Your task to perform on an android device: open app "Google Translate" (install if not already installed) Image 0: 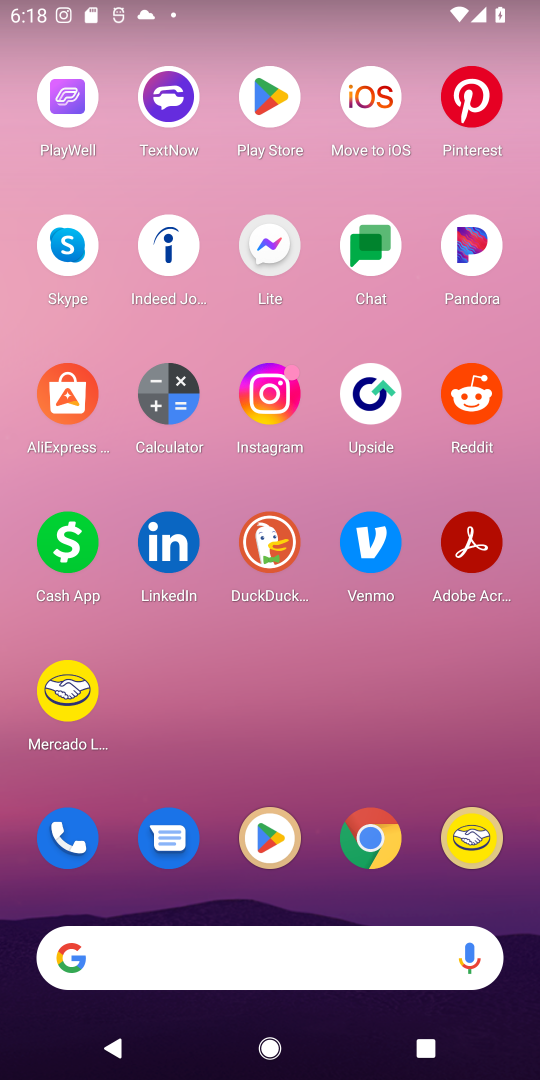
Step 0: click (264, 833)
Your task to perform on an android device: open app "Google Translate" (install if not already installed) Image 1: 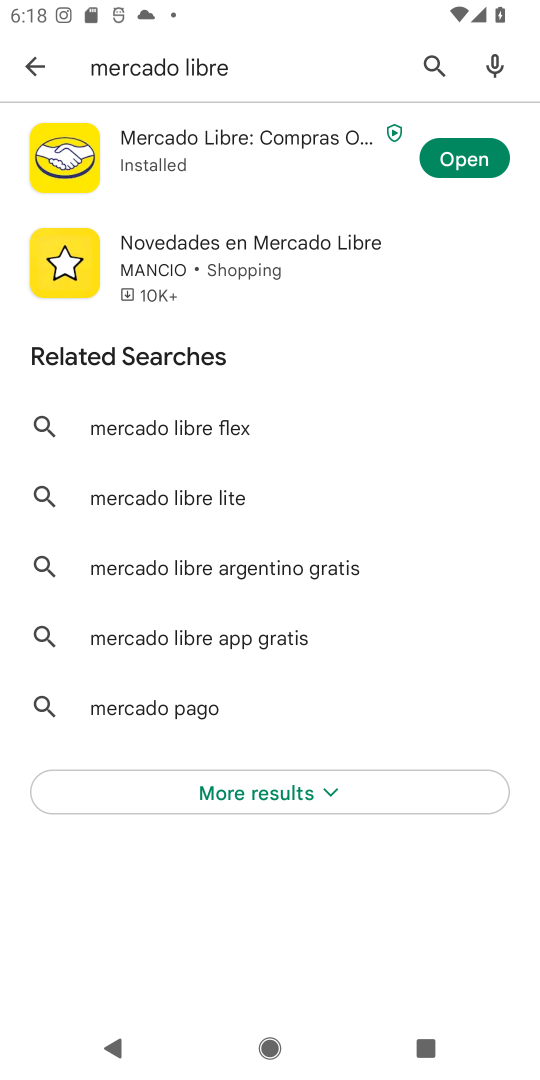
Step 1: click (440, 57)
Your task to perform on an android device: open app "Google Translate" (install if not already installed) Image 2: 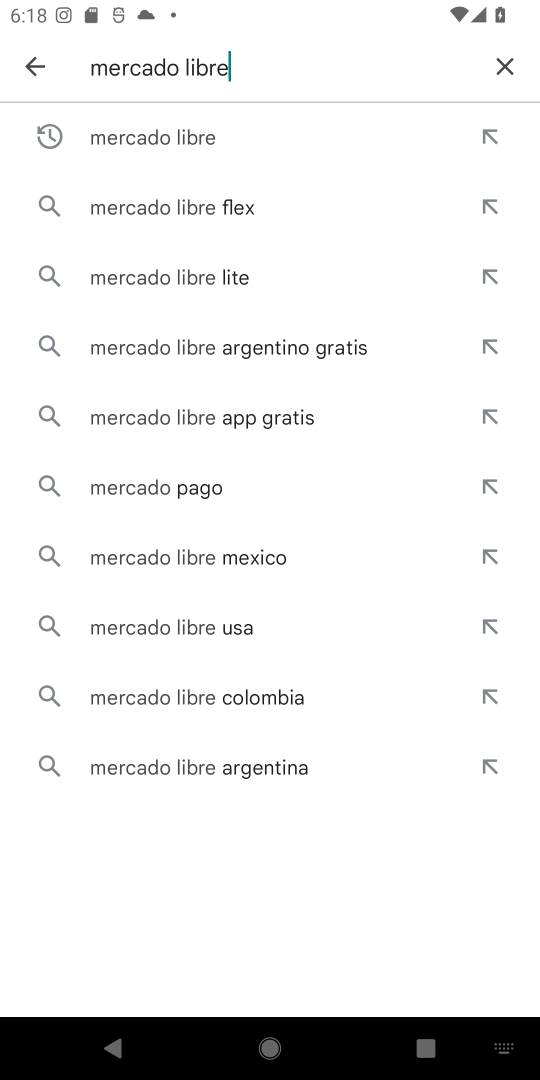
Step 2: click (505, 65)
Your task to perform on an android device: open app "Google Translate" (install if not already installed) Image 3: 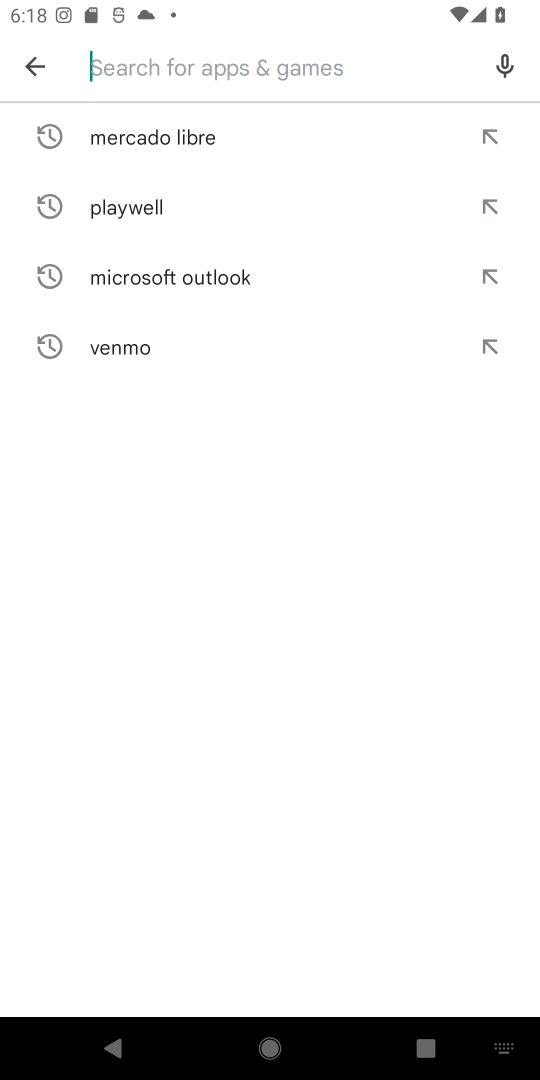
Step 3: type "Google Translate"
Your task to perform on an android device: open app "Google Translate" (install if not already installed) Image 4: 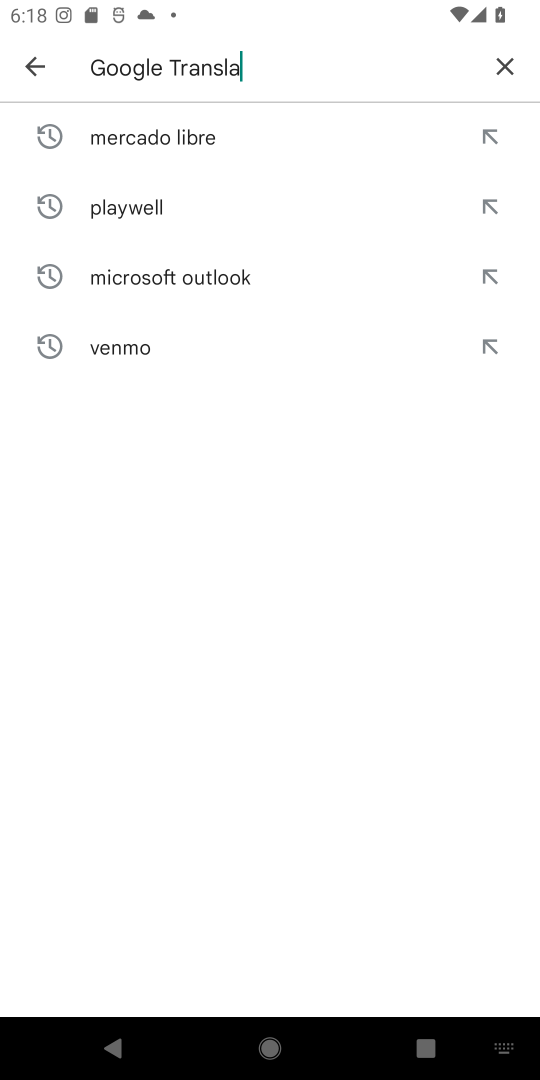
Step 4: type ""
Your task to perform on an android device: open app "Google Translate" (install if not already installed) Image 5: 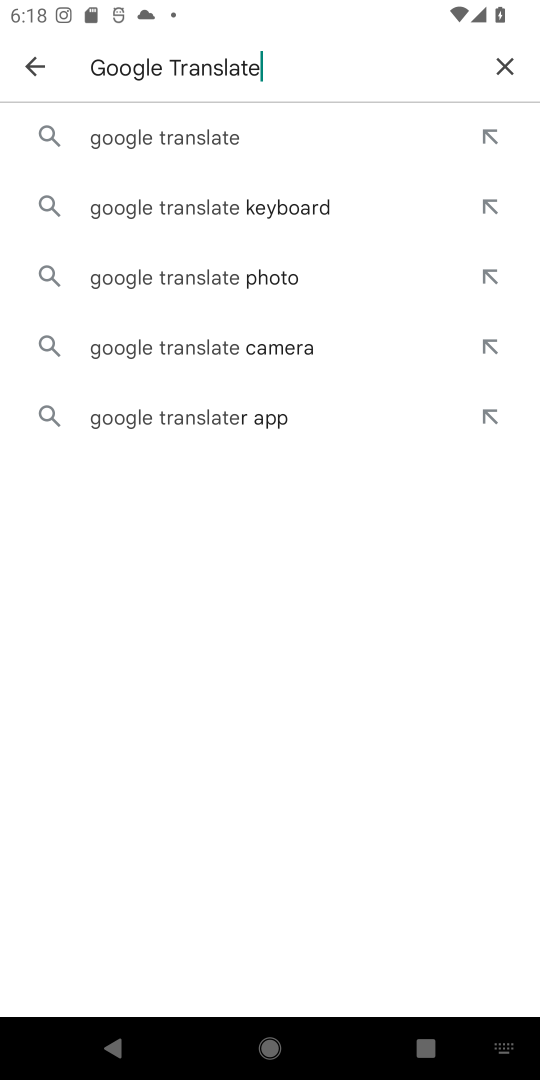
Step 5: click (214, 141)
Your task to perform on an android device: open app "Google Translate" (install if not already installed) Image 6: 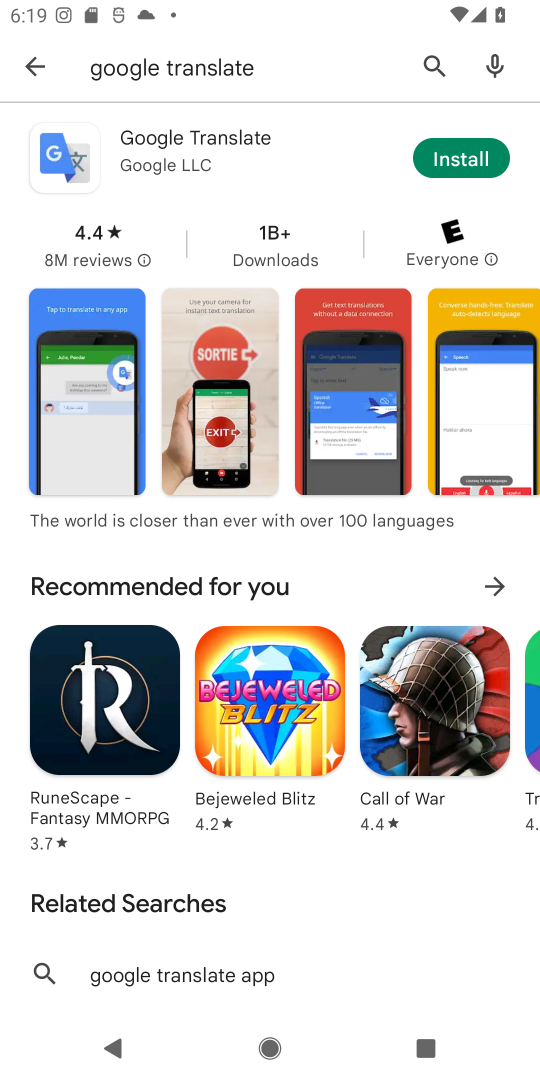
Step 6: click (449, 153)
Your task to perform on an android device: open app "Google Translate" (install if not already installed) Image 7: 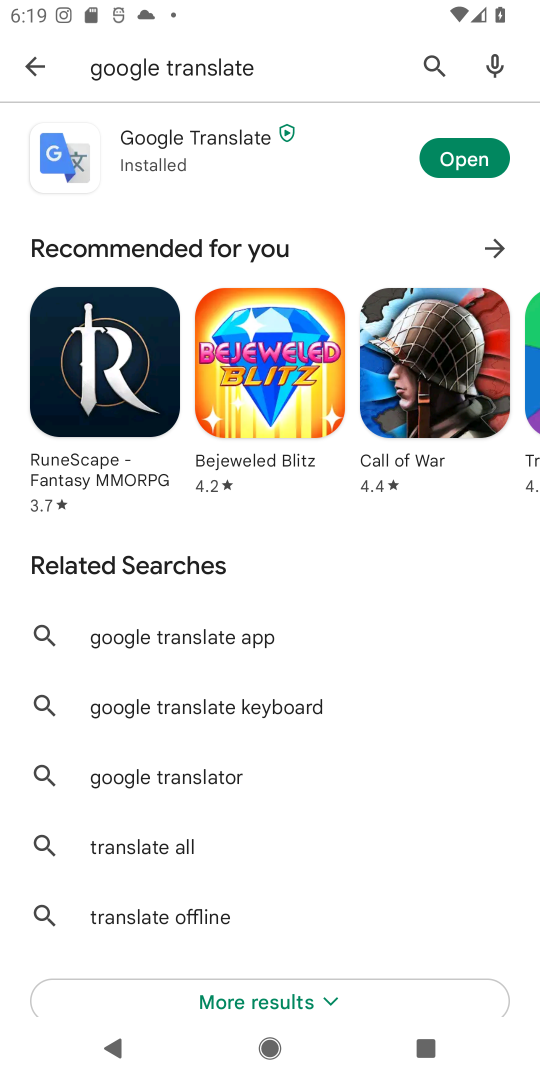
Step 7: click (463, 159)
Your task to perform on an android device: open app "Google Translate" (install if not already installed) Image 8: 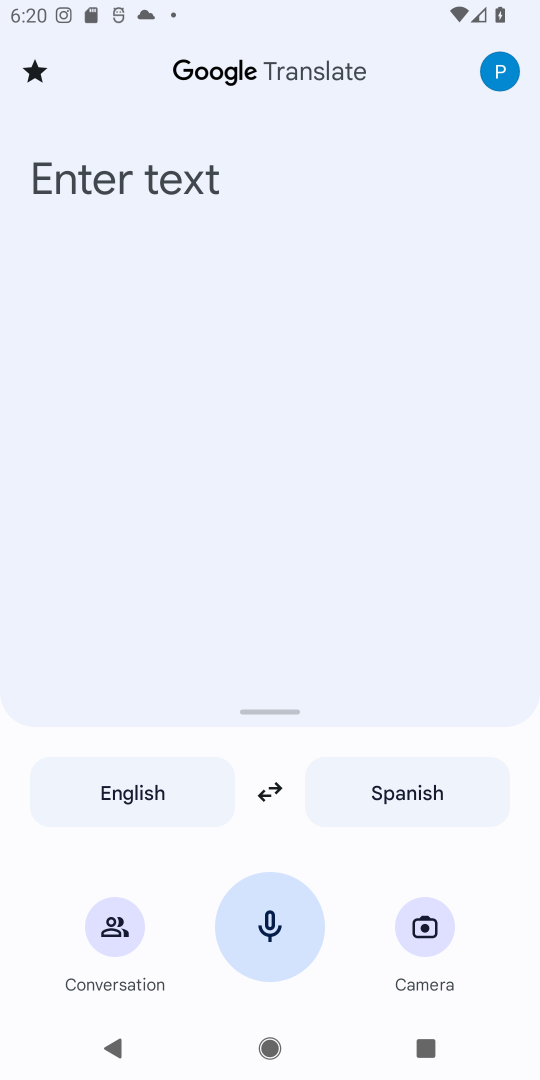
Step 8: press home button
Your task to perform on an android device: open app "Google Translate" (install if not already installed) Image 9: 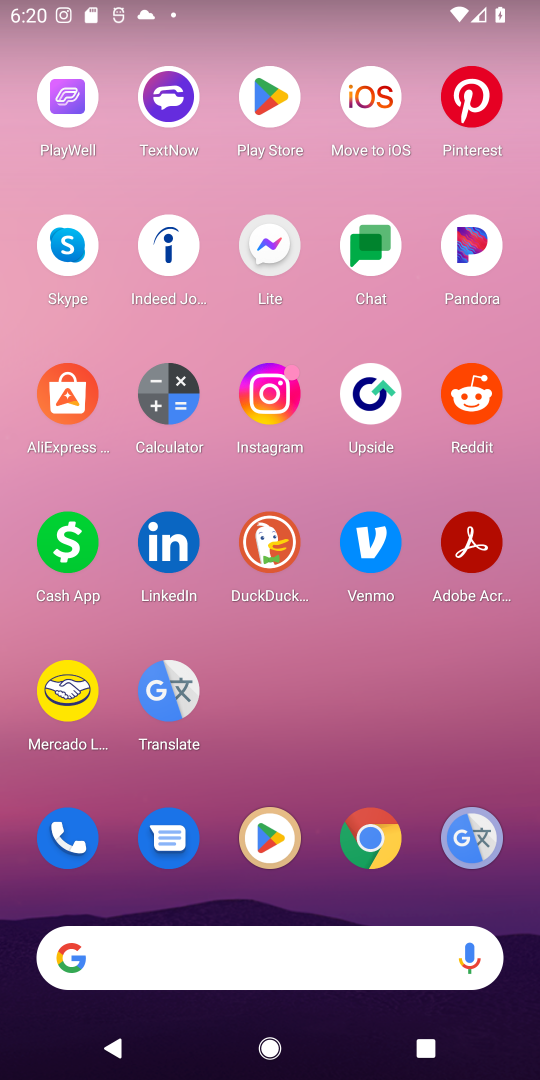
Step 9: click (259, 852)
Your task to perform on an android device: open app "Google Translate" (install if not already installed) Image 10: 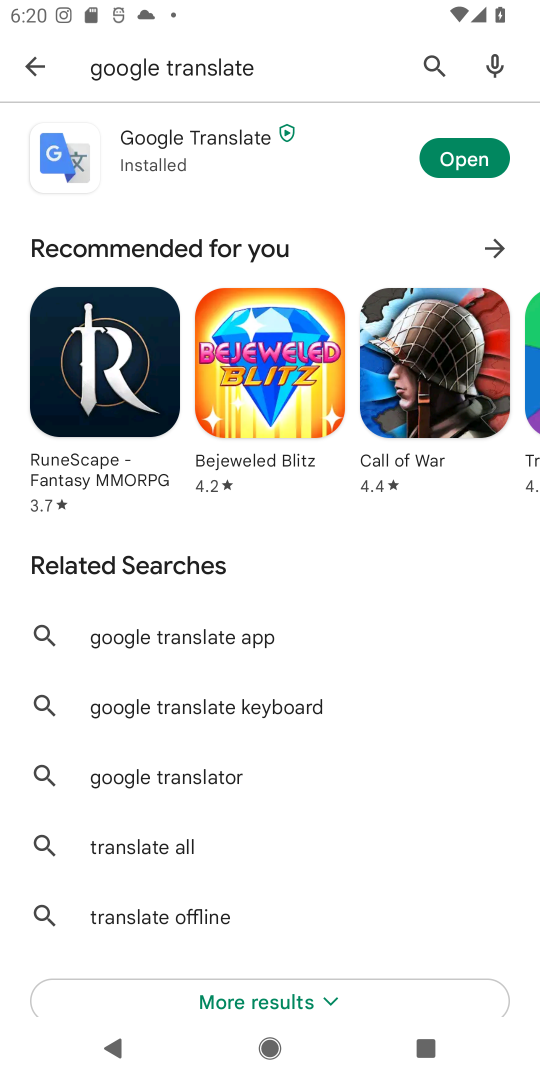
Step 10: click (470, 167)
Your task to perform on an android device: open app "Google Translate" (install if not already installed) Image 11: 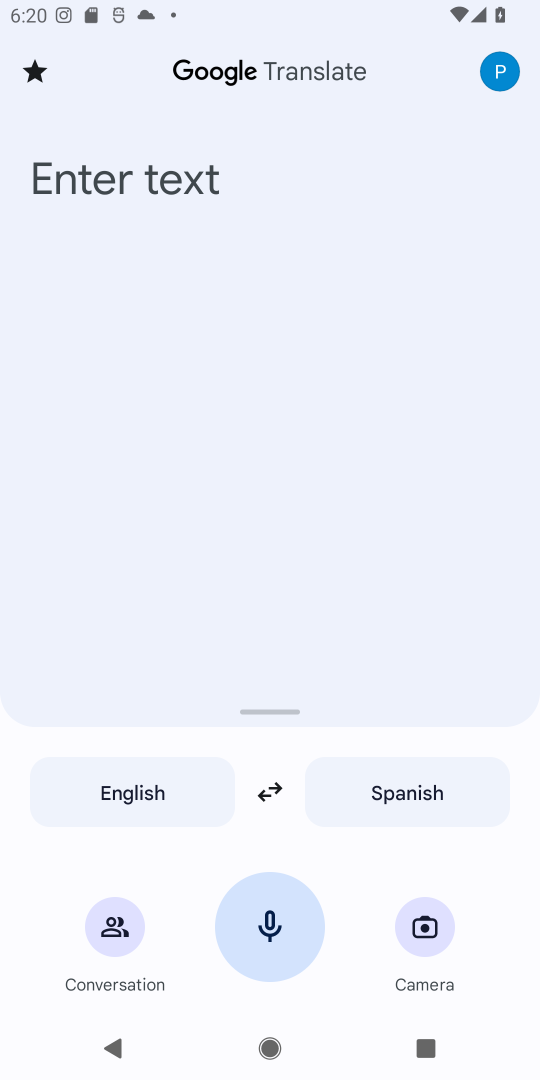
Step 11: task complete